Your task to perform on an android device: Go to Maps Image 0: 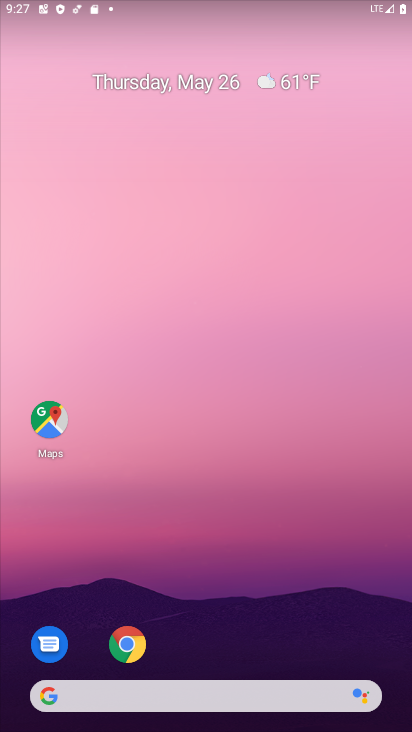
Step 0: drag from (272, 655) to (158, 18)
Your task to perform on an android device: Go to Maps Image 1: 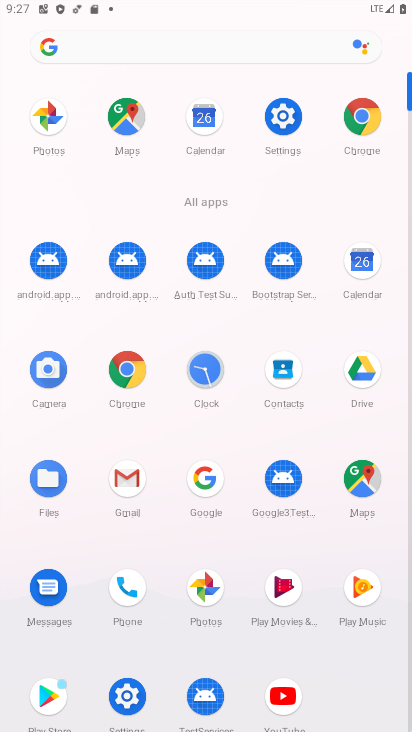
Step 1: click (372, 487)
Your task to perform on an android device: Go to Maps Image 2: 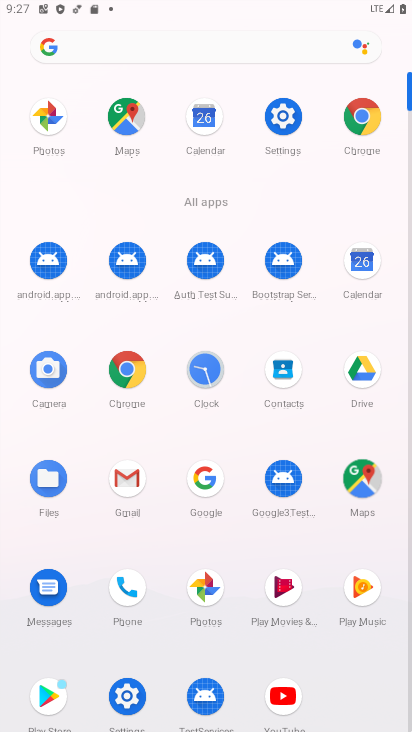
Step 2: click (371, 488)
Your task to perform on an android device: Go to Maps Image 3: 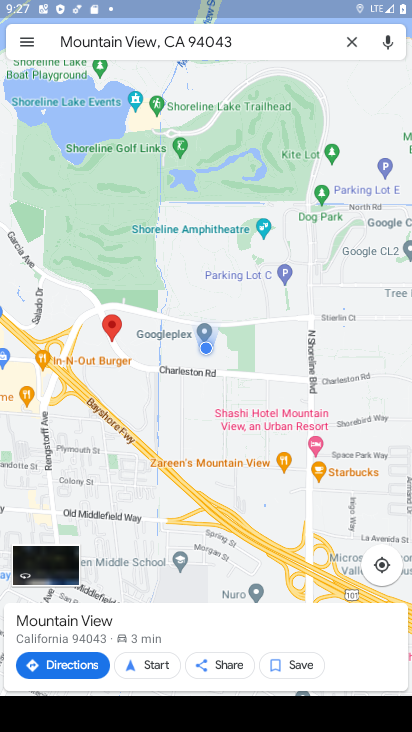
Step 3: task complete